Your task to perform on an android device: Open wifi settings Image 0: 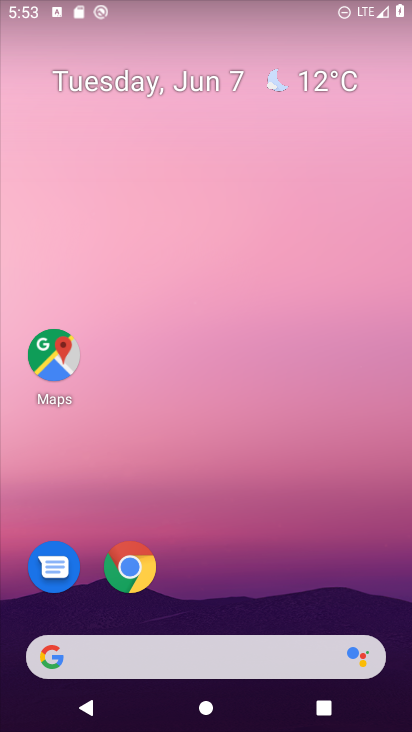
Step 0: drag from (218, 673) to (261, 54)
Your task to perform on an android device: Open wifi settings Image 1: 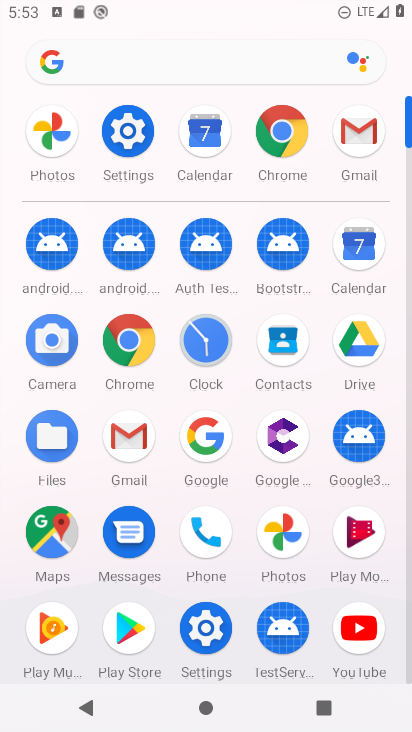
Step 1: click (130, 157)
Your task to perform on an android device: Open wifi settings Image 2: 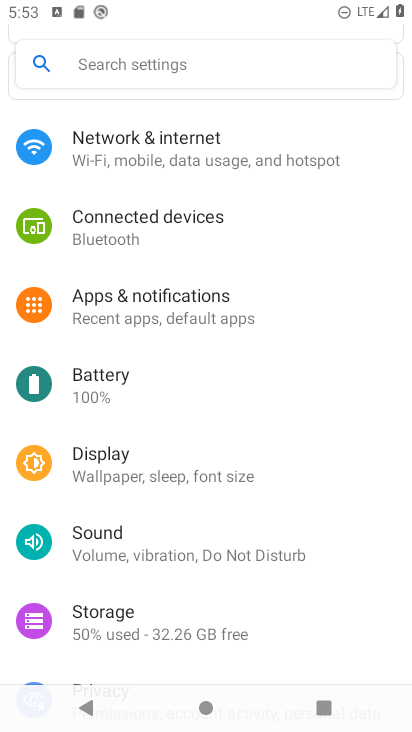
Step 2: click (163, 167)
Your task to perform on an android device: Open wifi settings Image 3: 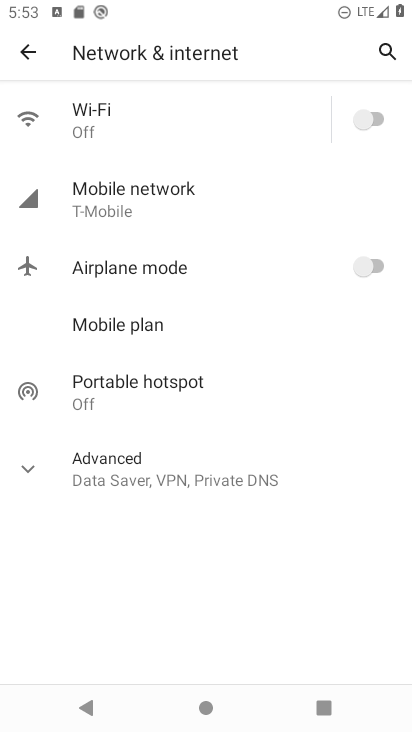
Step 3: click (121, 111)
Your task to perform on an android device: Open wifi settings Image 4: 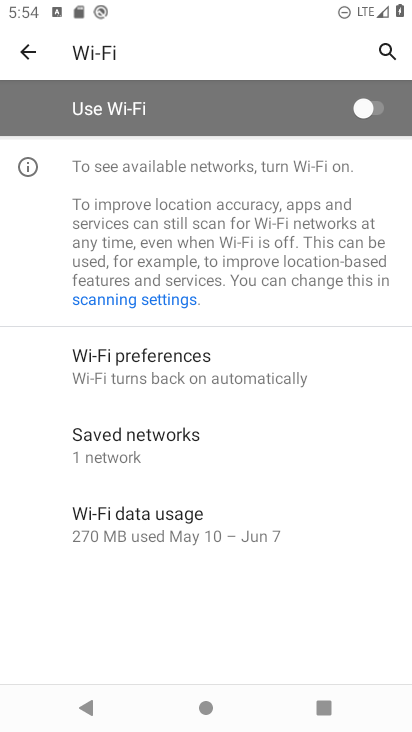
Step 4: task complete